Your task to perform on an android device: Open Google Maps Image 0: 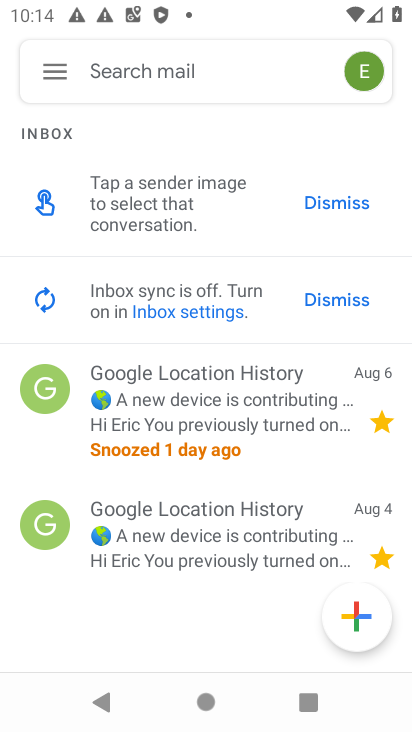
Step 0: press home button
Your task to perform on an android device: Open Google Maps Image 1: 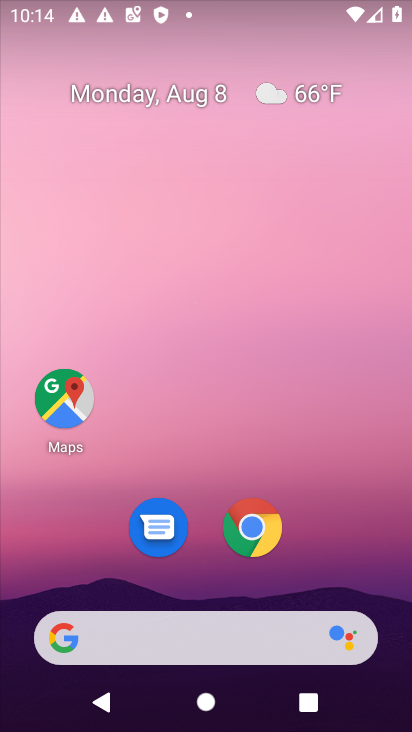
Step 1: click (73, 398)
Your task to perform on an android device: Open Google Maps Image 2: 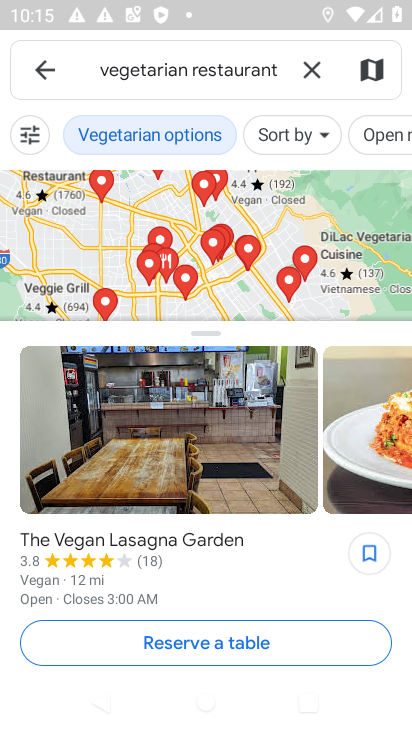
Step 2: click (47, 67)
Your task to perform on an android device: Open Google Maps Image 3: 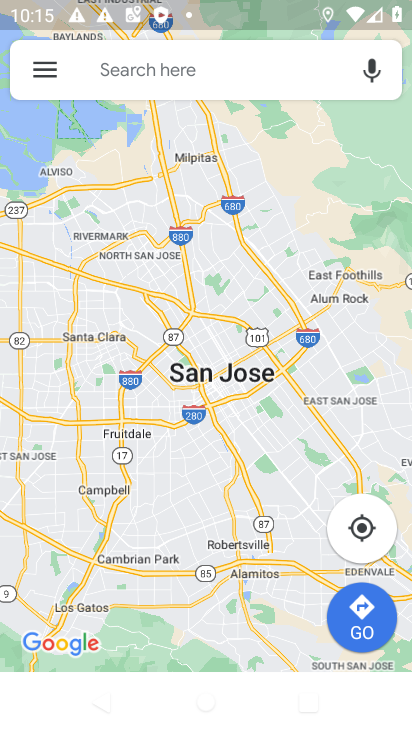
Step 3: task complete